Your task to perform on an android device: turn on data saver in the chrome app Image 0: 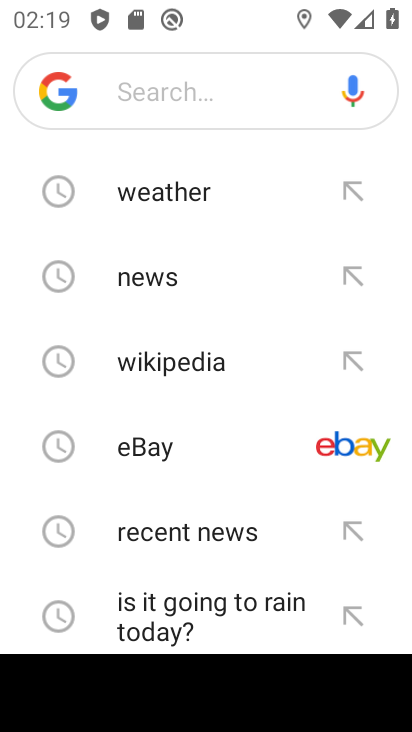
Step 0: press home button
Your task to perform on an android device: turn on data saver in the chrome app Image 1: 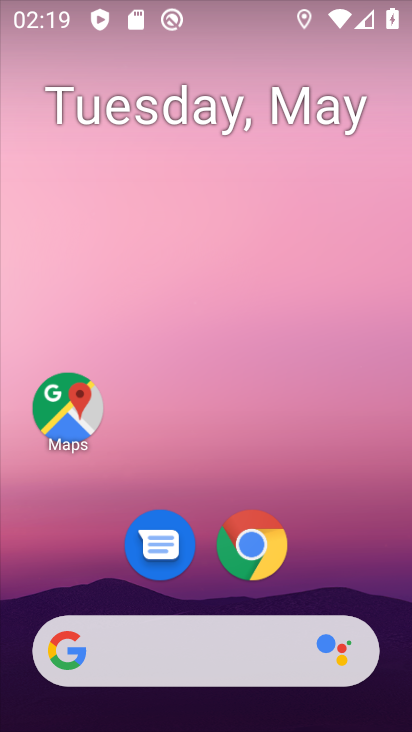
Step 1: click (258, 559)
Your task to perform on an android device: turn on data saver in the chrome app Image 2: 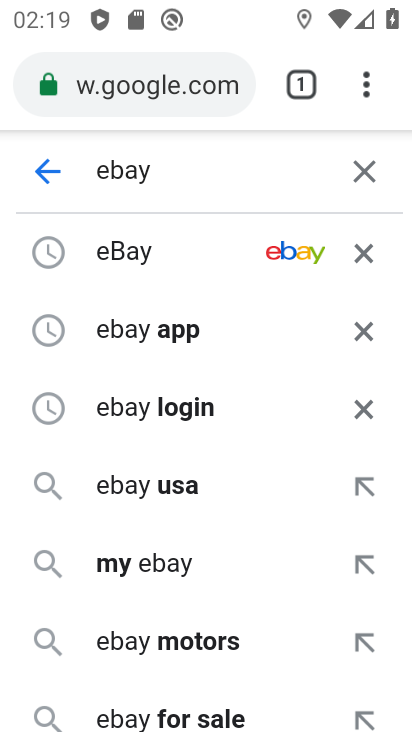
Step 2: click (366, 85)
Your task to perform on an android device: turn on data saver in the chrome app Image 3: 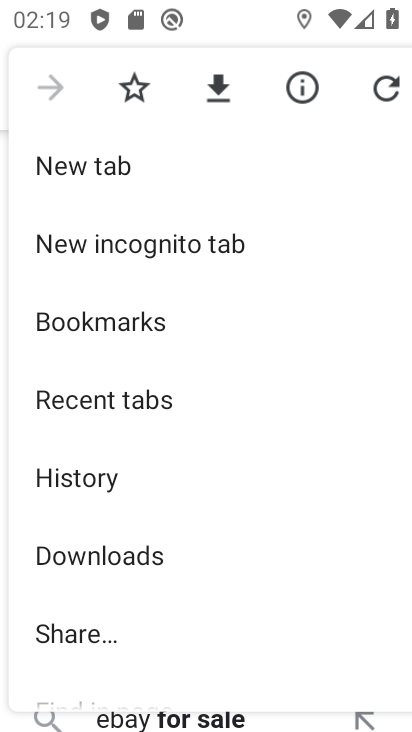
Step 3: drag from (164, 634) to (300, 182)
Your task to perform on an android device: turn on data saver in the chrome app Image 4: 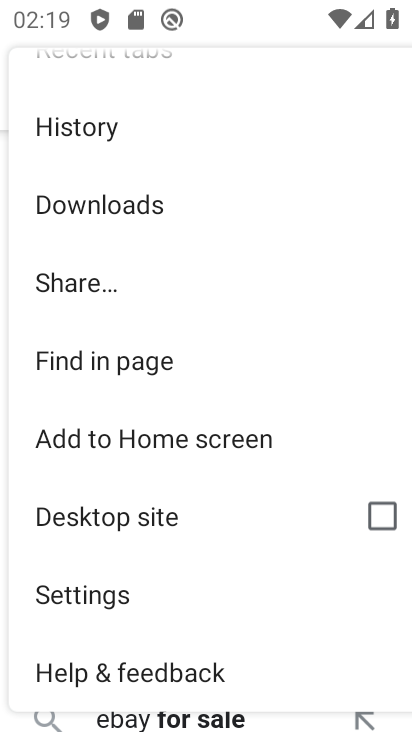
Step 4: click (152, 594)
Your task to perform on an android device: turn on data saver in the chrome app Image 5: 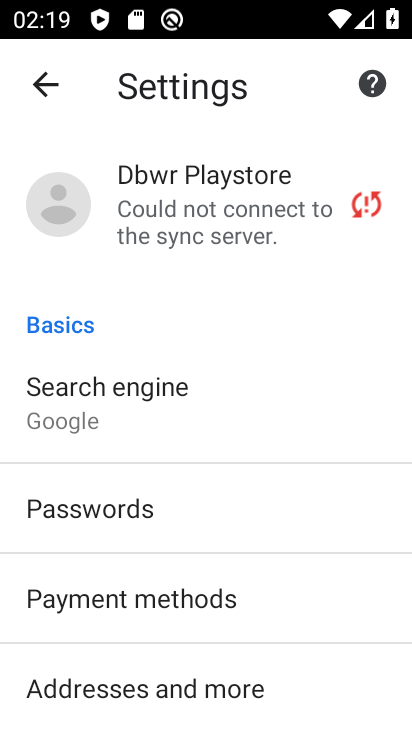
Step 5: drag from (237, 706) to (221, 139)
Your task to perform on an android device: turn on data saver in the chrome app Image 6: 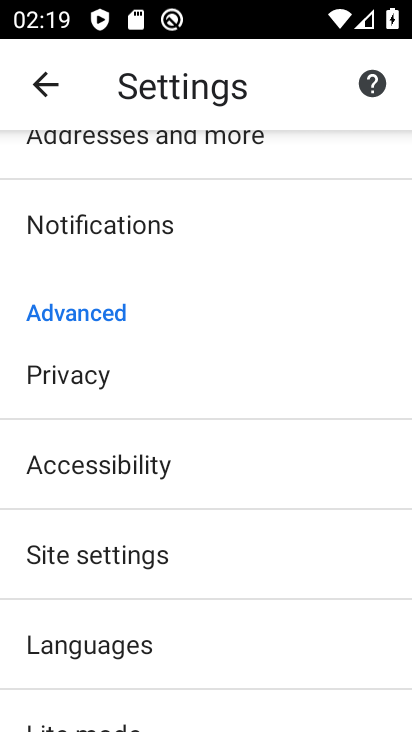
Step 6: drag from (189, 608) to (239, 279)
Your task to perform on an android device: turn on data saver in the chrome app Image 7: 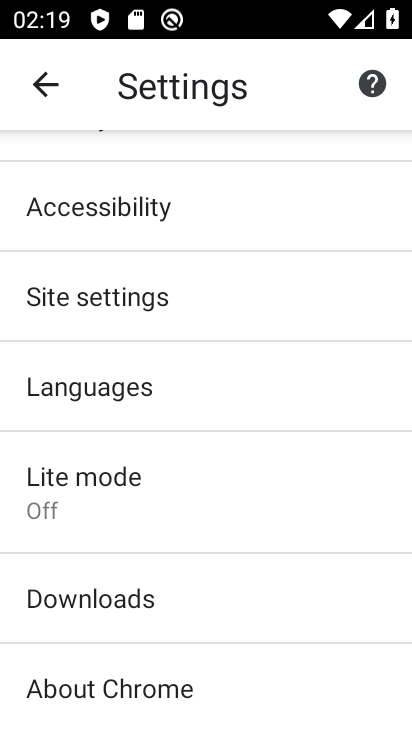
Step 7: click (129, 506)
Your task to perform on an android device: turn on data saver in the chrome app Image 8: 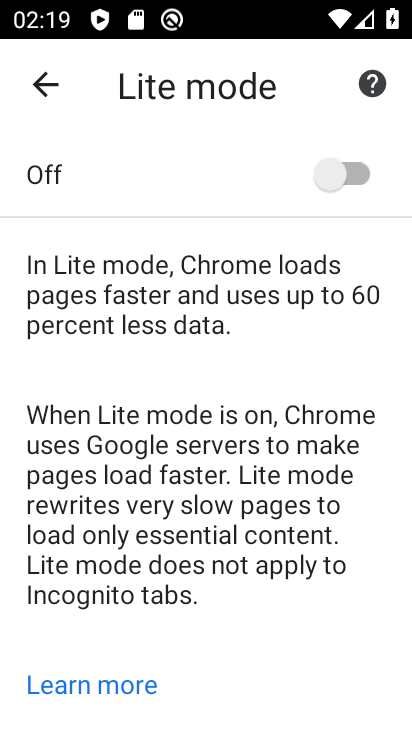
Step 8: click (357, 173)
Your task to perform on an android device: turn on data saver in the chrome app Image 9: 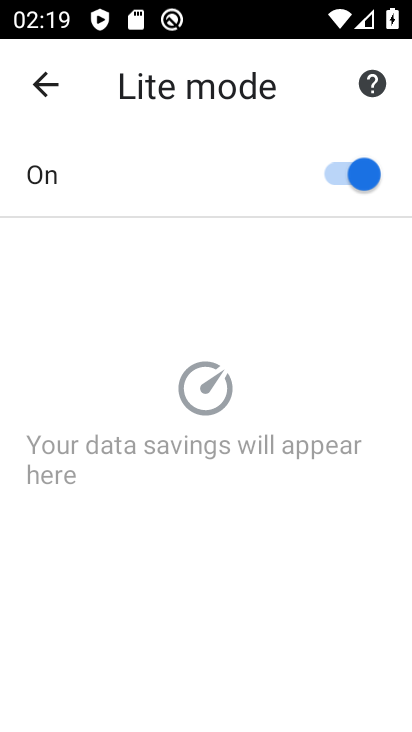
Step 9: task complete